Your task to perform on an android device: Search for a tv stand on Ikea Image 0: 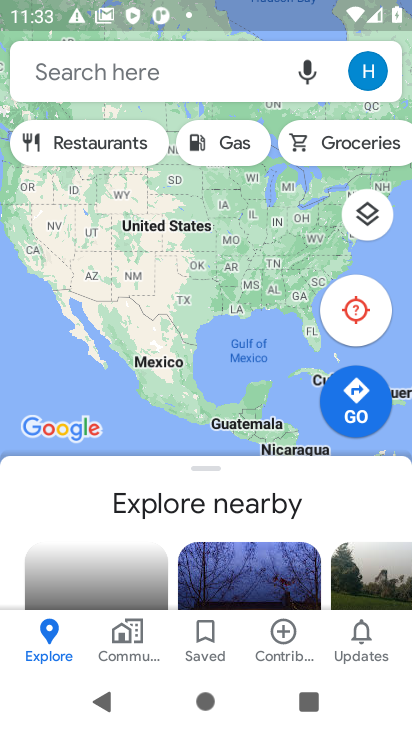
Step 0: press home button
Your task to perform on an android device: Search for a tv stand on Ikea Image 1: 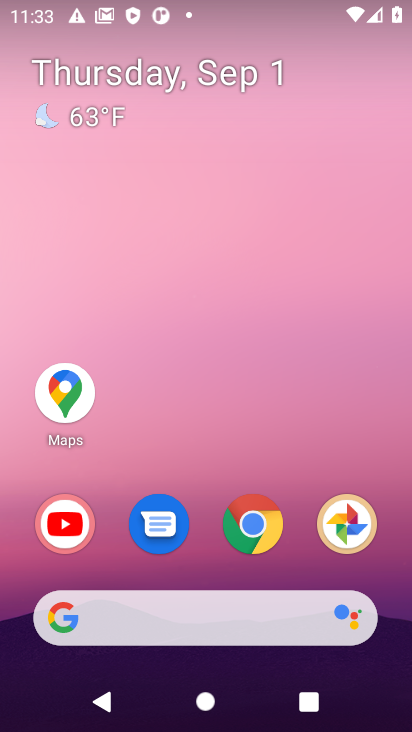
Step 1: click (234, 534)
Your task to perform on an android device: Search for a tv stand on Ikea Image 2: 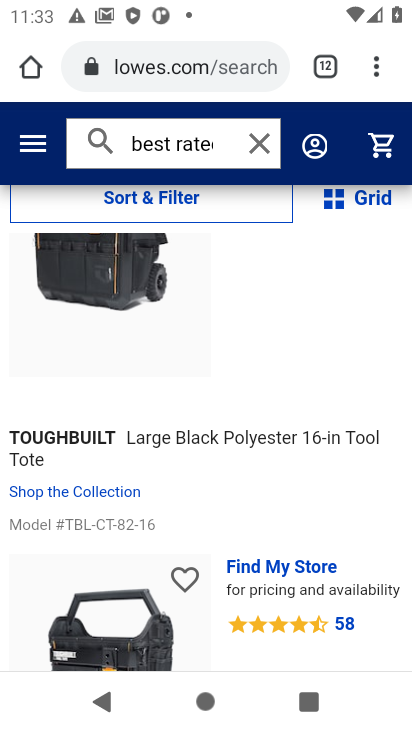
Step 2: click (327, 66)
Your task to perform on an android device: Search for a tv stand on Ikea Image 3: 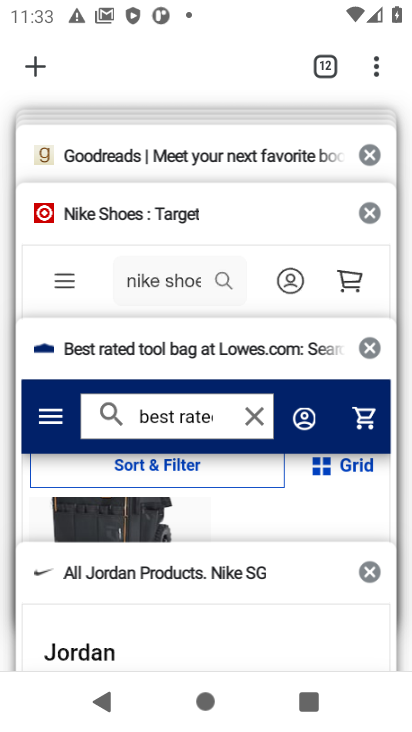
Step 3: drag from (179, 165) to (223, 623)
Your task to perform on an android device: Search for a tv stand on Ikea Image 4: 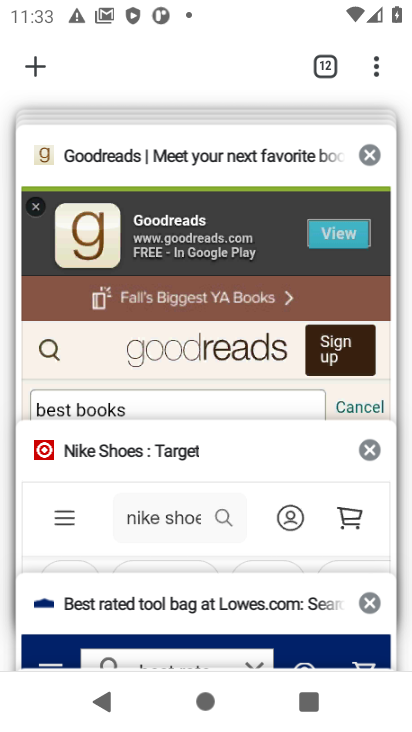
Step 4: drag from (191, 161) to (229, 490)
Your task to perform on an android device: Search for a tv stand on Ikea Image 5: 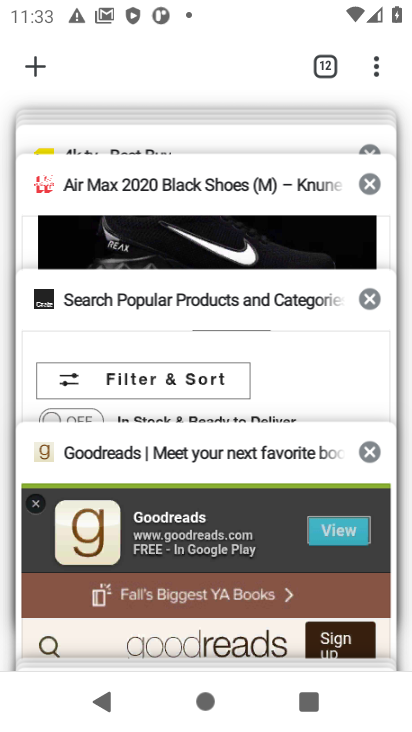
Step 5: drag from (179, 174) to (220, 637)
Your task to perform on an android device: Search for a tv stand on Ikea Image 6: 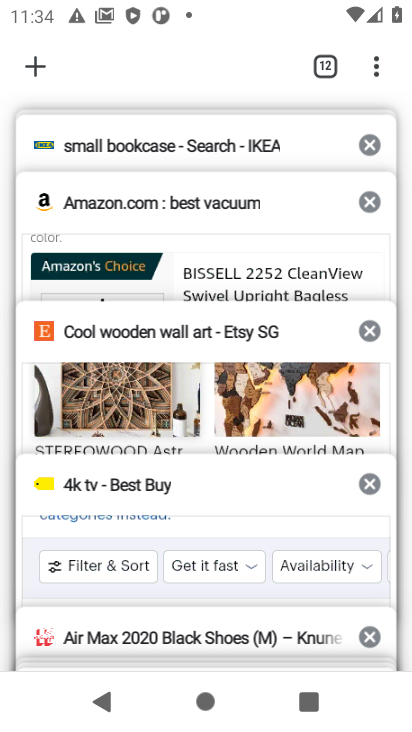
Step 6: click (167, 140)
Your task to perform on an android device: Search for a tv stand on Ikea Image 7: 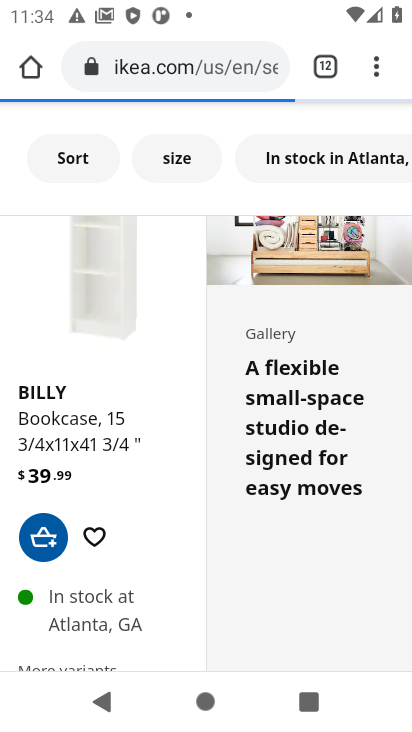
Step 7: drag from (161, 272) to (182, 669)
Your task to perform on an android device: Search for a tv stand on Ikea Image 8: 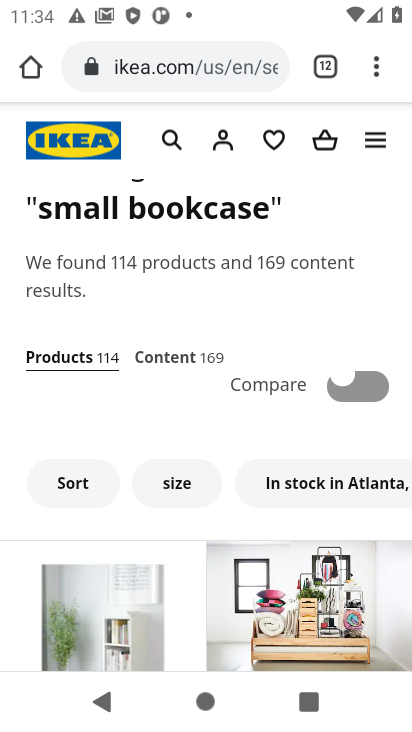
Step 8: drag from (240, 254) to (269, 610)
Your task to perform on an android device: Search for a tv stand on Ikea Image 9: 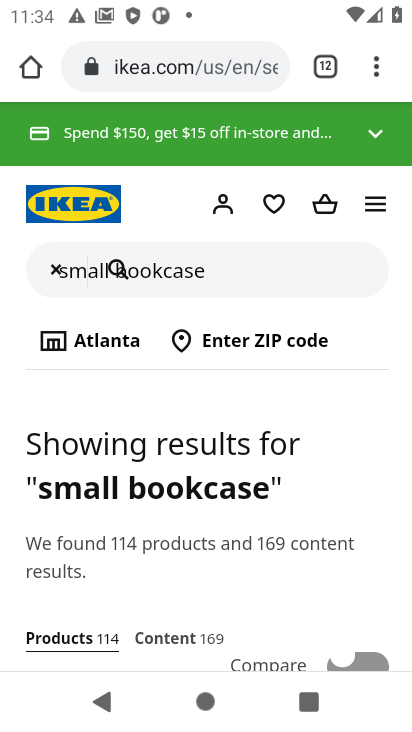
Step 9: click (189, 259)
Your task to perform on an android device: Search for a tv stand on Ikea Image 10: 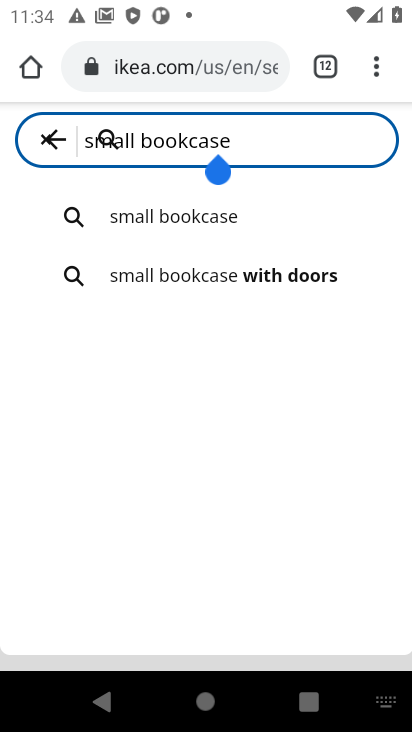
Step 10: click (256, 136)
Your task to perform on an android device: Search for a tv stand on Ikea Image 11: 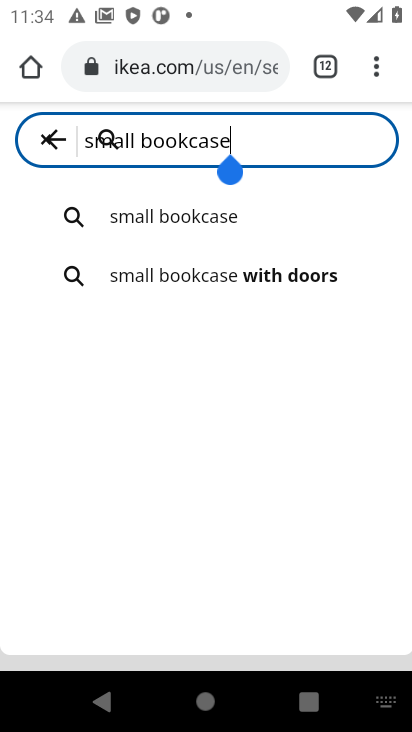
Step 11: click (256, 136)
Your task to perform on an android device: Search for a tv stand on Ikea Image 12: 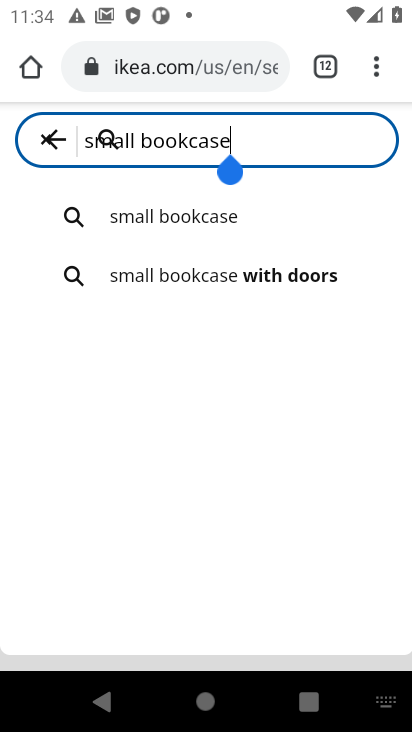
Step 12: click (256, 136)
Your task to perform on an android device: Search for a tv stand on Ikea Image 13: 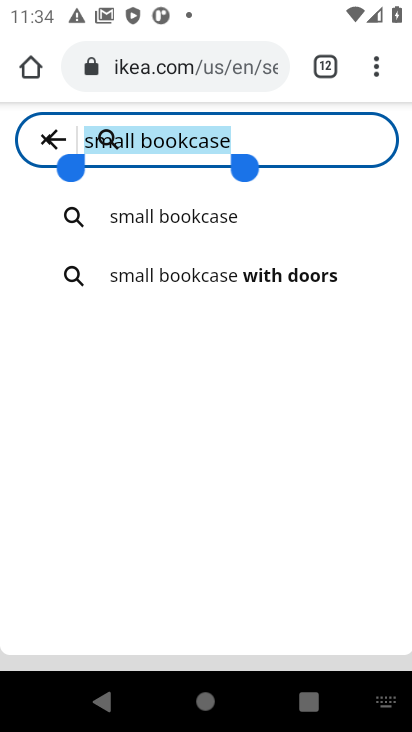
Step 13: click (279, 135)
Your task to perform on an android device: Search for a tv stand on Ikea Image 14: 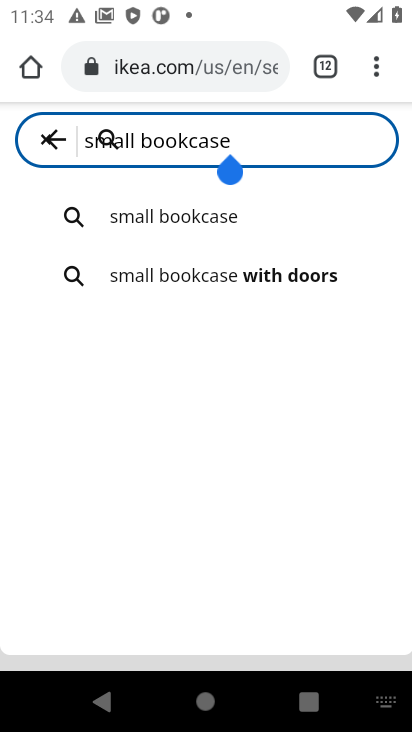
Step 14: click (45, 136)
Your task to perform on an android device: Search for a tv stand on Ikea Image 15: 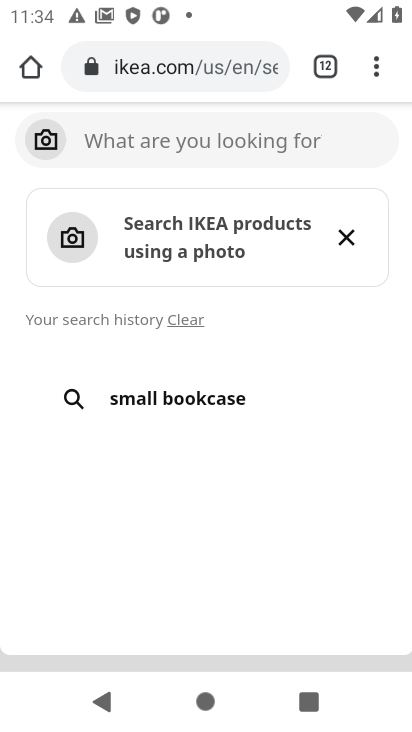
Step 15: click (117, 144)
Your task to perform on an android device: Search for a tv stand on Ikea Image 16: 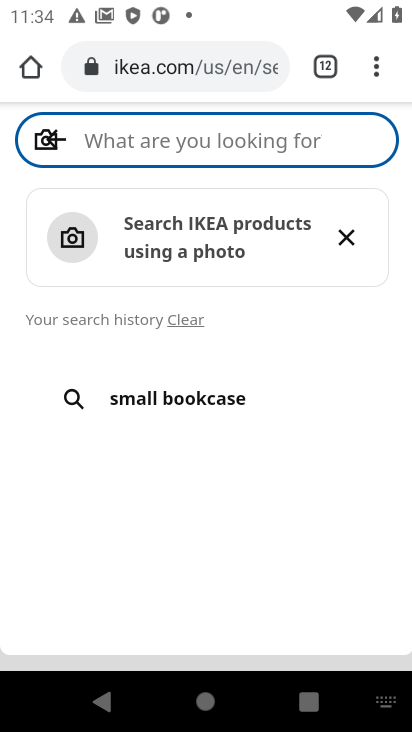
Step 16: type "tv stand"
Your task to perform on an android device: Search for a tv stand on Ikea Image 17: 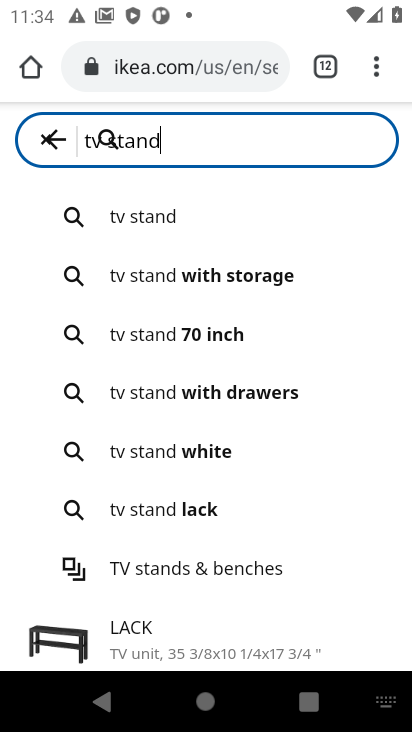
Step 17: click (141, 218)
Your task to perform on an android device: Search for a tv stand on Ikea Image 18: 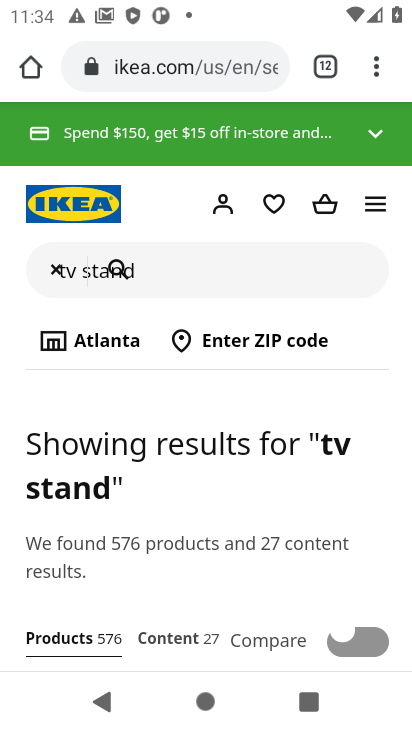
Step 18: task complete